Your task to perform on an android device: Open internet settings Image 0: 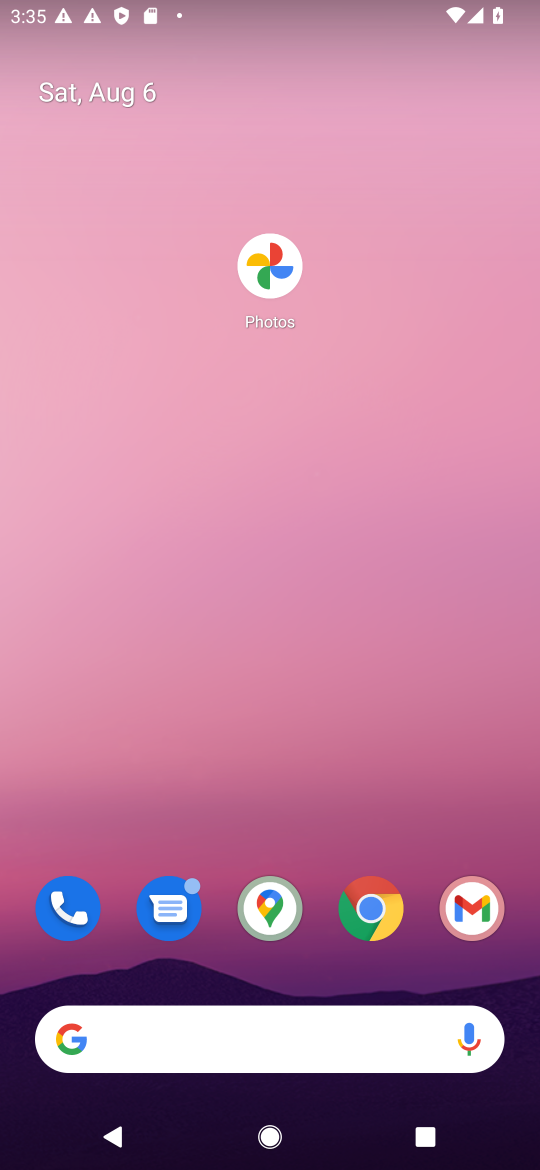
Step 0: click (233, 208)
Your task to perform on an android device: Open internet settings Image 1: 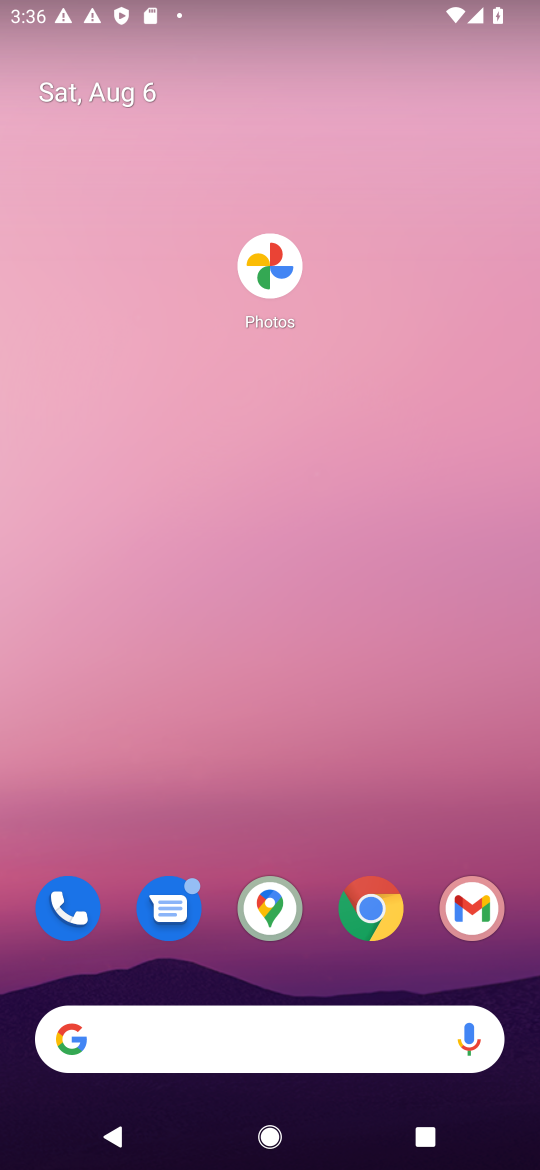
Step 1: drag from (313, 840) to (394, 13)
Your task to perform on an android device: Open internet settings Image 2: 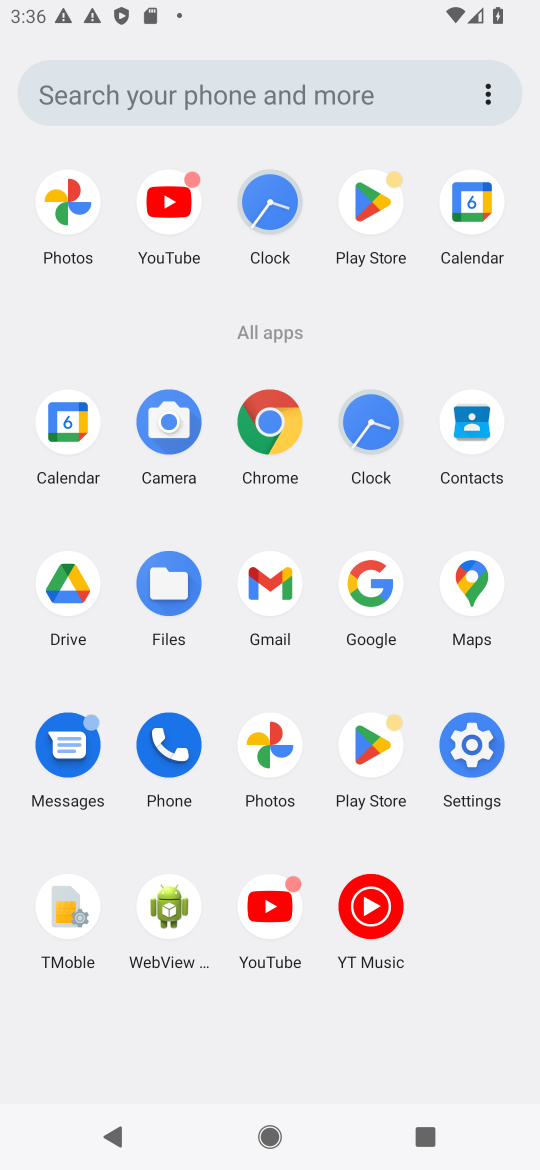
Step 2: click (477, 780)
Your task to perform on an android device: Open internet settings Image 3: 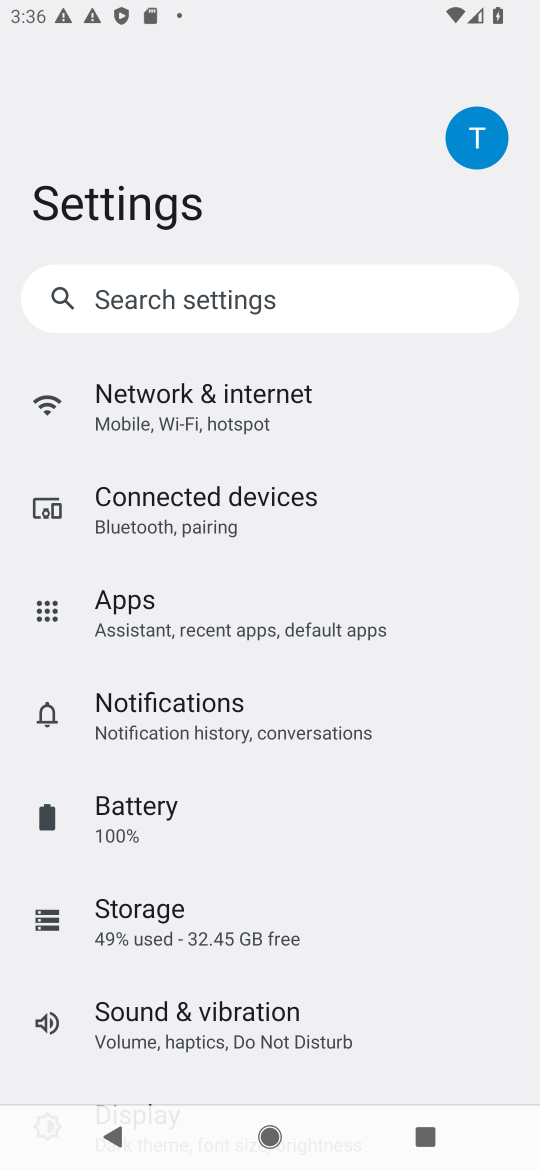
Step 3: click (227, 416)
Your task to perform on an android device: Open internet settings Image 4: 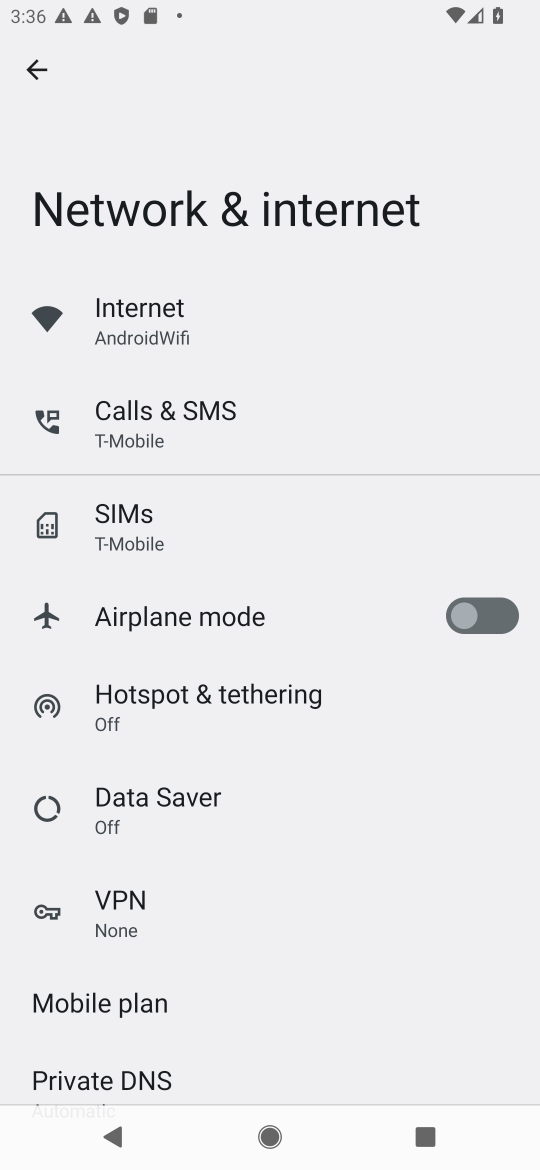
Step 4: click (151, 305)
Your task to perform on an android device: Open internet settings Image 5: 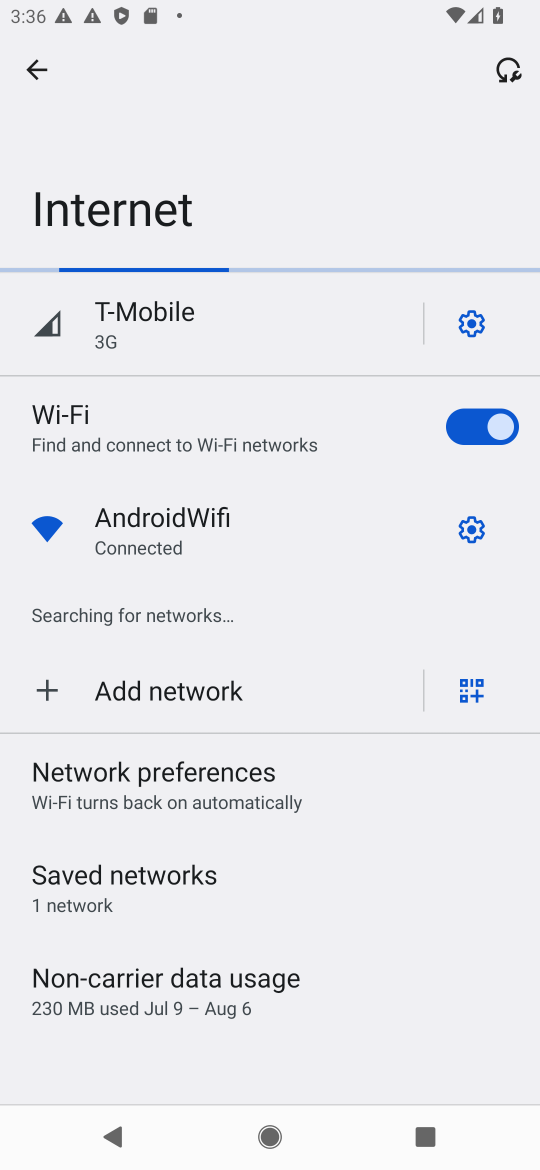
Step 5: task complete